Your task to perform on an android device: Go to battery settings Image 0: 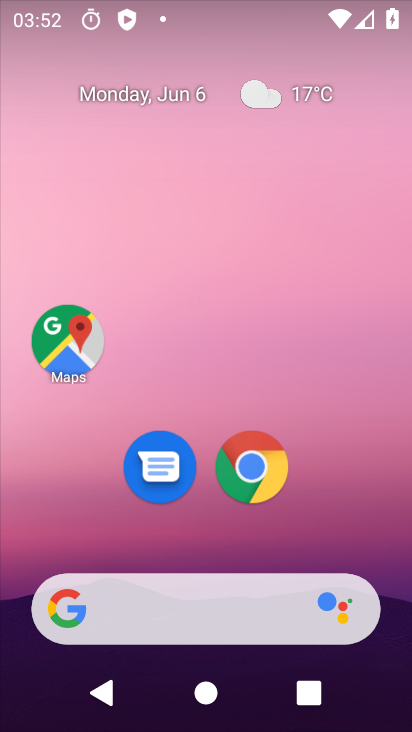
Step 0: drag from (206, 525) to (208, 67)
Your task to perform on an android device: Go to battery settings Image 1: 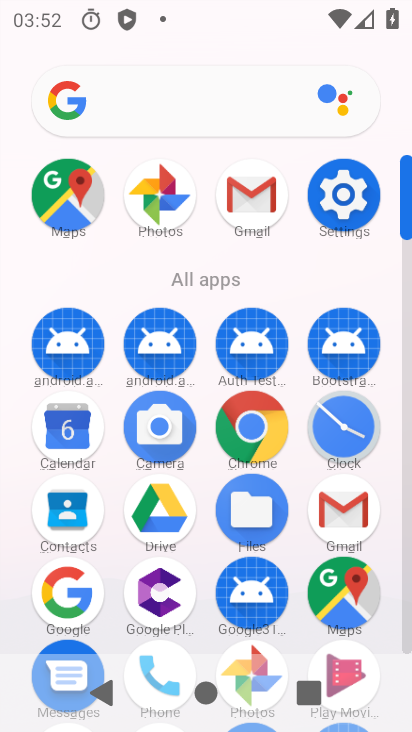
Step 1: click (340, 183)
Your task to perform on an android device: Go to battery settings Image 2: 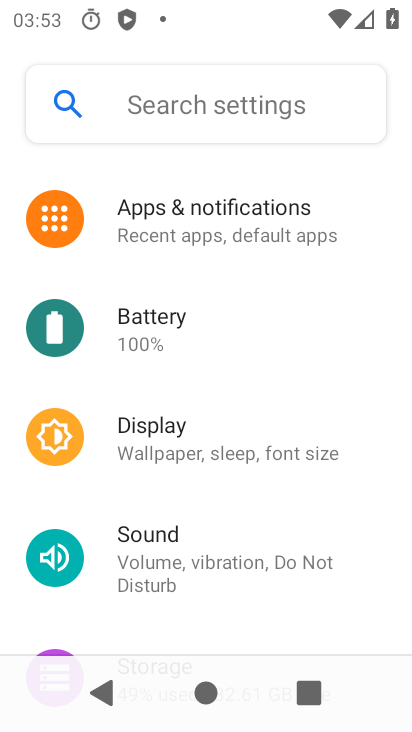
Step 2: click (204, 326)
Your task to perform on an android device: Go to battery settings Image 3: 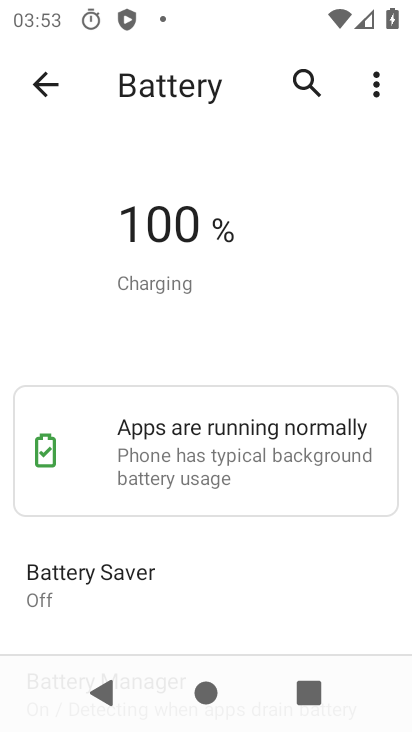
Step 3: task complete